Your task to perform on an android device: turn on bluetooth scan Image 0: 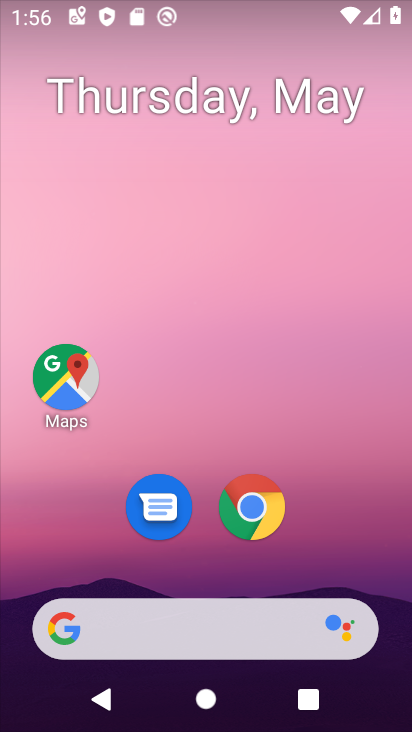
Step 0: drag from (304, 652) to (360, 77)
Your task to perform on an android device: turn on bluetooth scan Image 1: 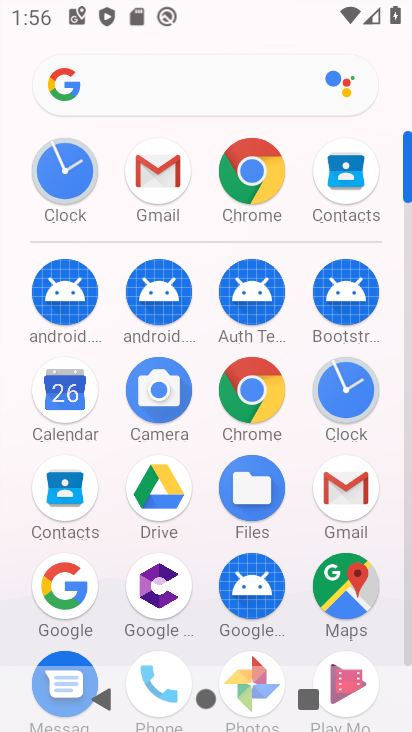
Step 1: drag from (197, 606) to (213, 203)
Your task to perform on an android device: turn on bluetooth scan Image 2: 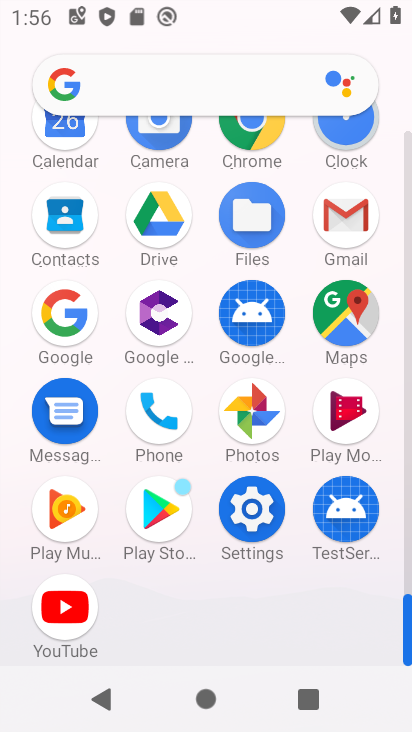
Step 2: click (249, 519)
Your task to perform on an android device: turn on bluetooth scan Image 3: 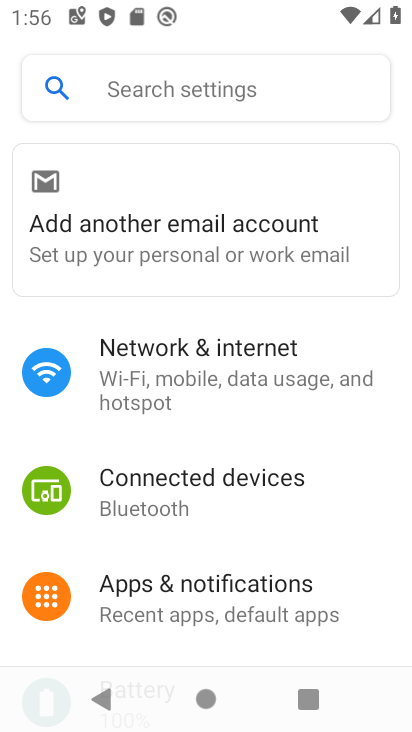
Step 3: drag from (296, 640) to (330, 101)
Your task to perform on an android device: turn on bluetooth scan Image 4: 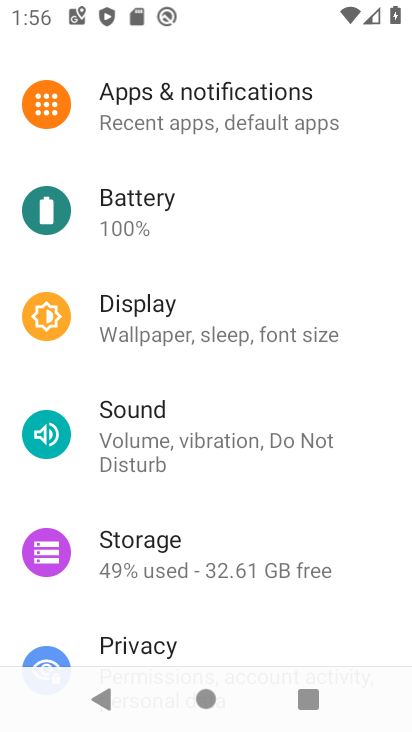
Step 4: drag from (290, 597) to (318, 66)
Your task to perform on an android device: turn on bluetooth scan Image 5: 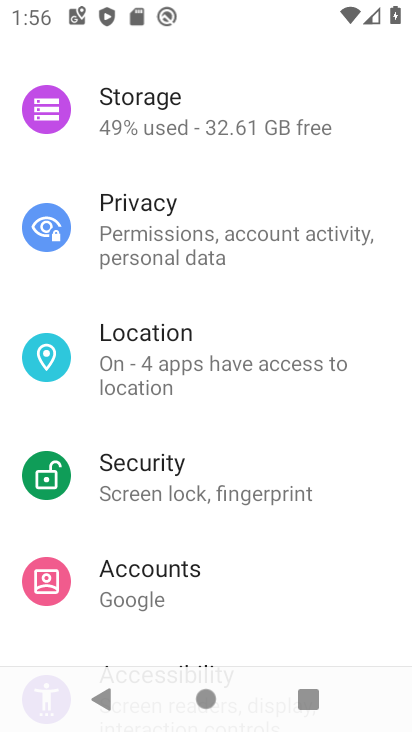
Step 5: click (309, 348)
Your task to perform on an android device: turn on bluetooth scan Image 6: 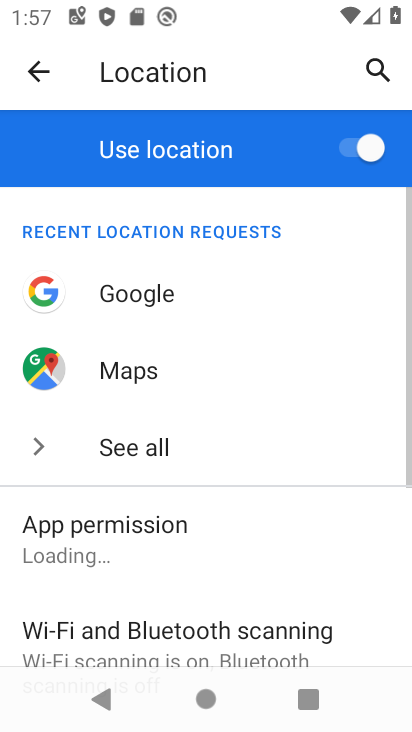
Step 6: click (317, 636)
Your task to perform on an android device: turn on bluetooth scan Image 7: 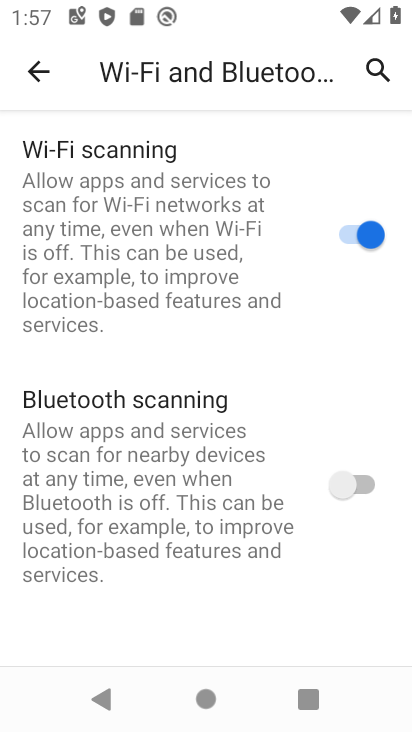
Step 7: click (364, 485)
Your task to perform on an android device: turn on bluetooth scan Image 8: 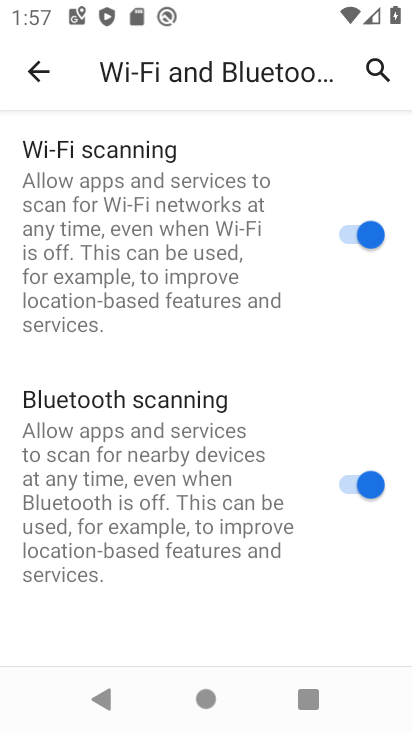
Step 8: task complete